Your task to perform on an android device: turn off notifications settings in the gmail app Image 0: 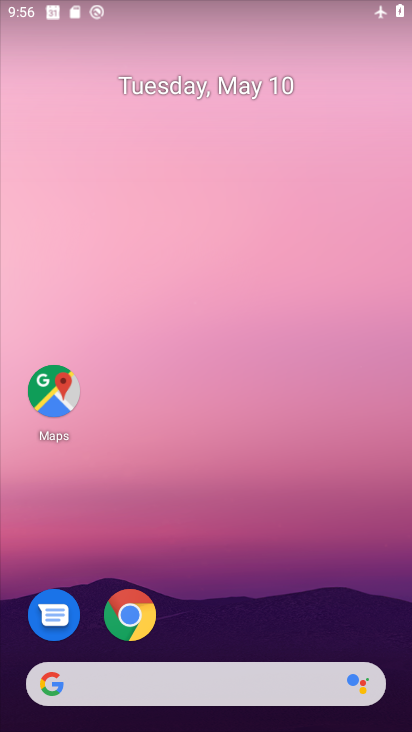
Step 0: drag from (235, 305) to (257, 149)
Your task to perform on an android device: turn off notifications settings in the gmail app Image 1: 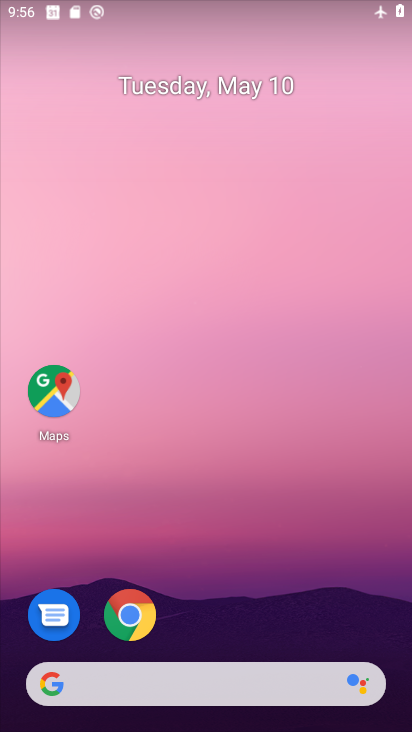
Step 1: drag from (219, 595) to (303, 179)
Your task to perform on an android device: turn off notifications settings in the gmail app Image 2: 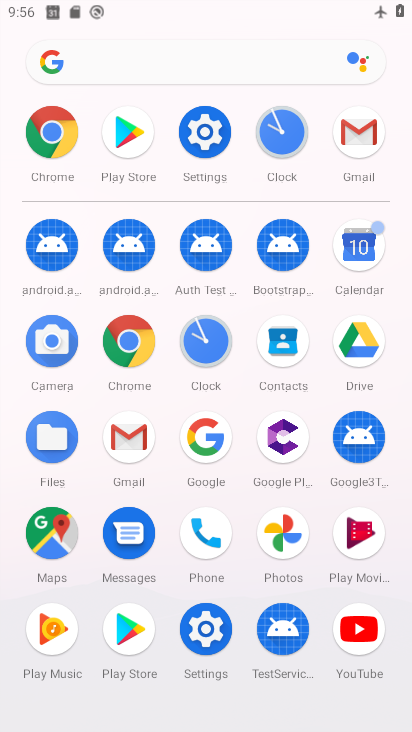
Step 2: click (133, 435)
Your task to perform on an android device: turn off notifications settings in the gmail app Image 3: 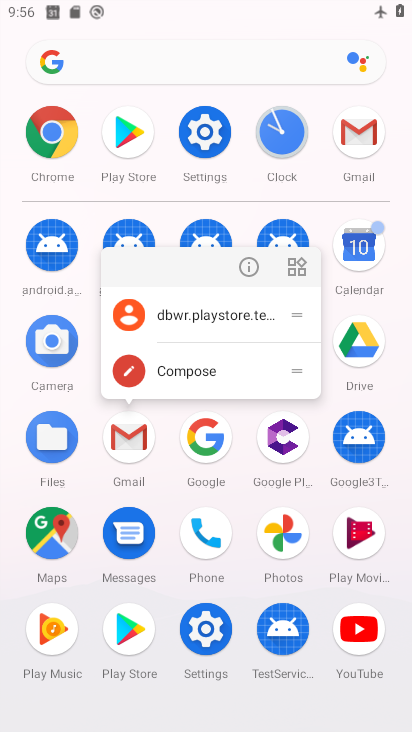
Step 3: click (254, 257)
Your task to perform on an android device: turn off notifications settings in the gmail app Image 4: 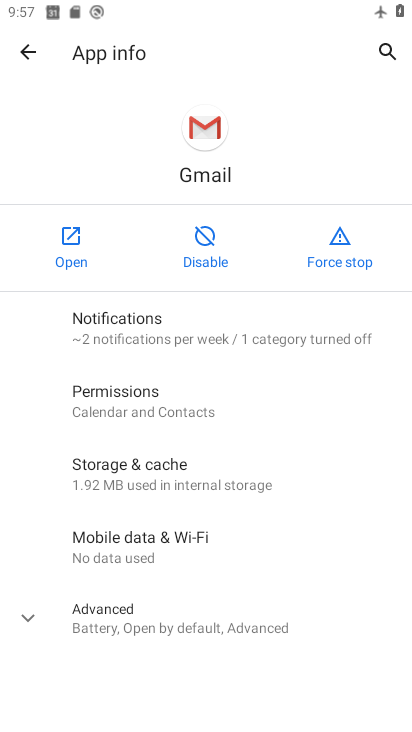
Step 4: click (62, 265)
Your task to perform on an android device: turn off notifications settings in the gmail app Image 5: 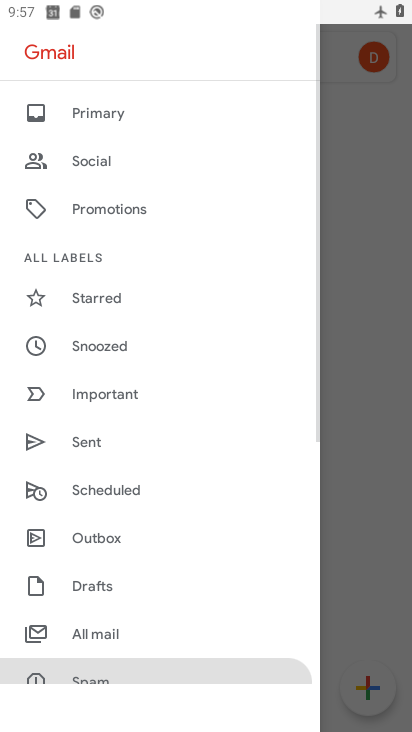
Step 5: drag from (105, 653) to (201, 199)
Your task to perform on an android device: turn off notifications settings in the gmail app Image 6: 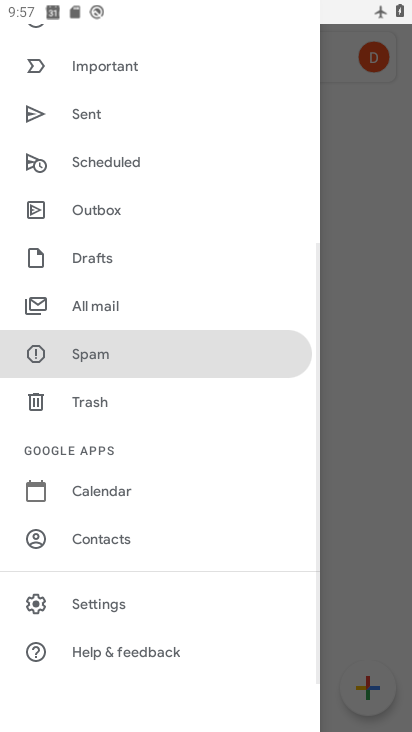
Step 6: click (85, 612)
Your task to perform on an android device: turn off notifications settings in the gmail app Image 7: 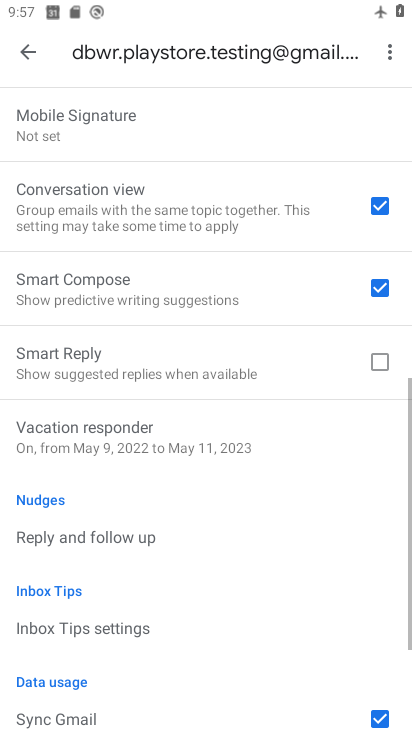
Step 7: drag from (98, 576) to (252, 135)
Your task to perform on an android device: turn off notifications settings in the gmail app Image 8: 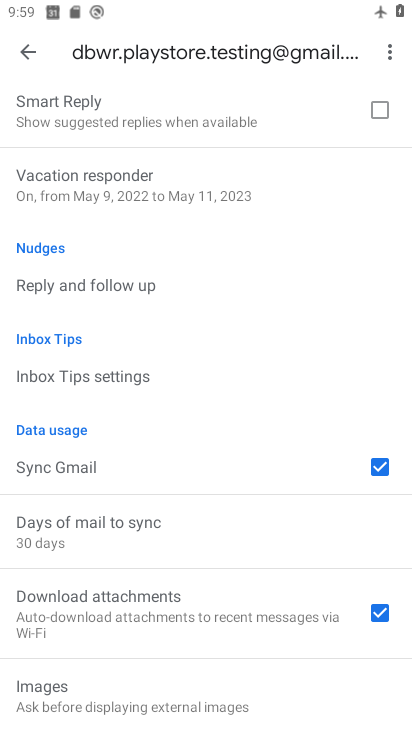
Step 8: drag from (169, 408) to (370, 92)
Your task to perform on an android device: turn off notifications settings in the gmail app Image 9: 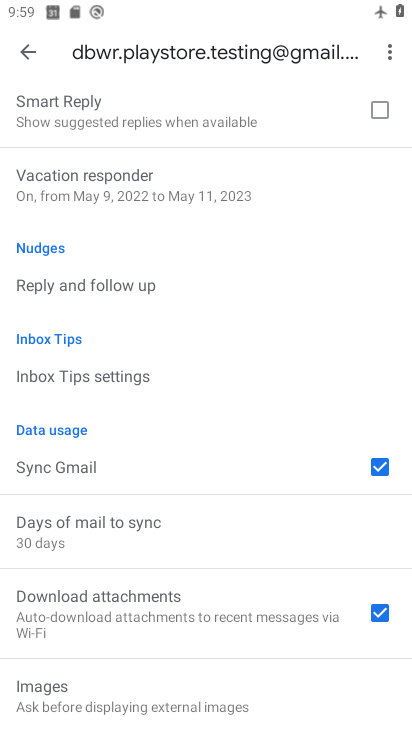
Step 9: drag from (120, 198) to (244, 590)
Your task to perform on an android device: turn off notifications settings in the gmail app Image 10: 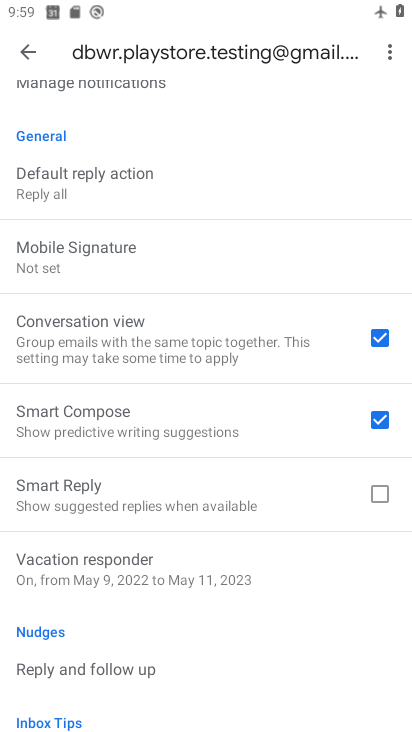
Step 10: drag from (181, 252) to (296, 629)
Your task to perform on an android device: turn off notifications settings in the gmail app Image 11: 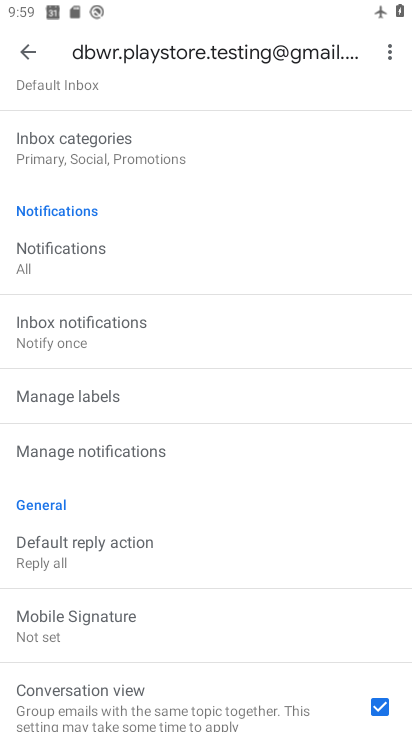
Step 11: drag from (233, 463) to (270, 79)
Your task to perform on an android device: turn off notifications settings in the gmail app Image 12: 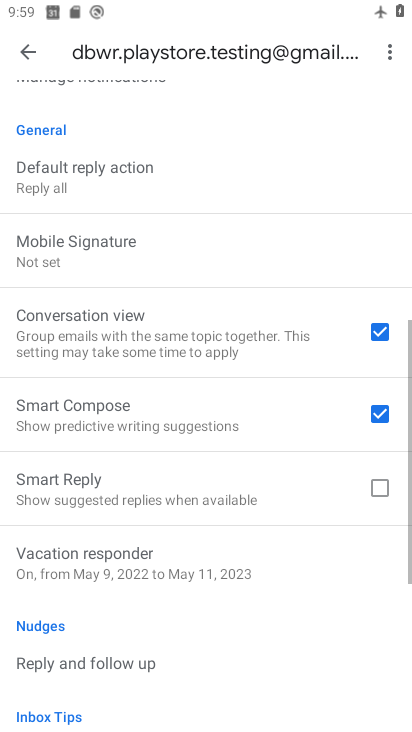
Step 12: drag from (214, 158) to (315, 725)
Your task to perform on an android device: turn off notifications settings in the gmail app Image 13: 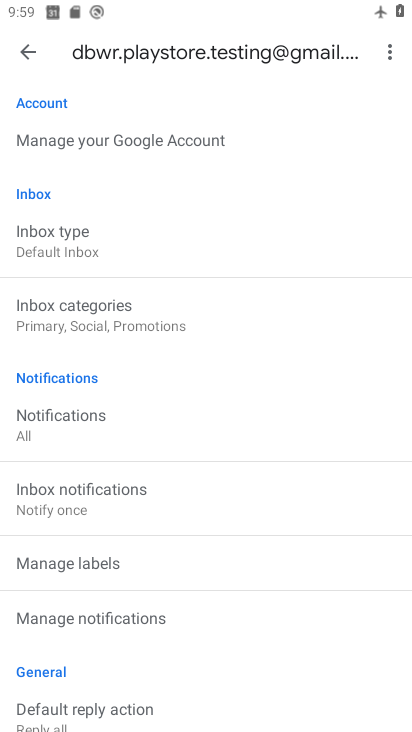
Step 13: drag from (120, 303) to (230, 49)
Your task to perform on an android device: turn off notifications settings in the gmail app Image 14: 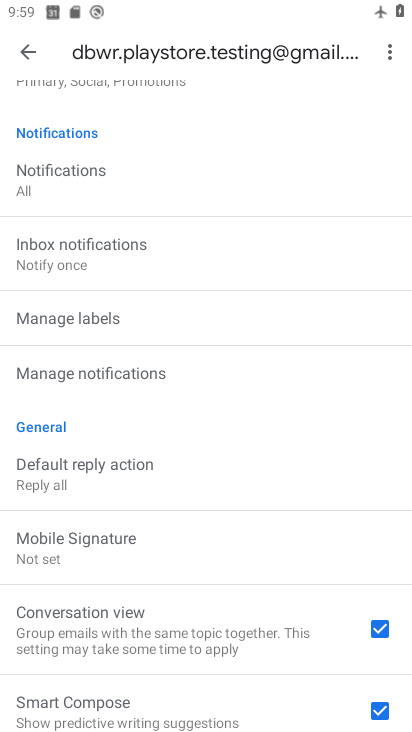
Step 14: click (100, 384)
Your task to perform on an android device: turn off notifications settings in the gmail app Image 15: 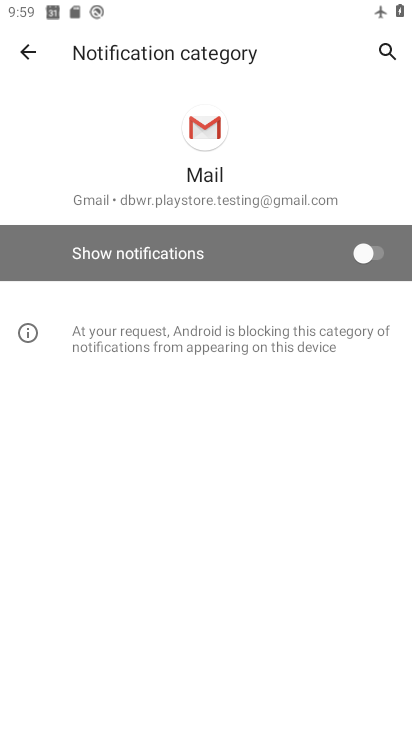
Step 15: task complete